Your task to perform on an android device: toggle location history Image 0: 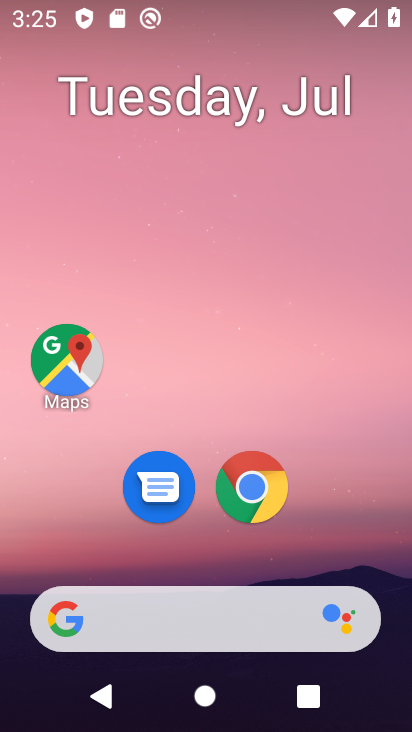
Step 0: drag from (85, 537) to (157, 38)
Your task to perform on an android device: toggle location history Image 1: 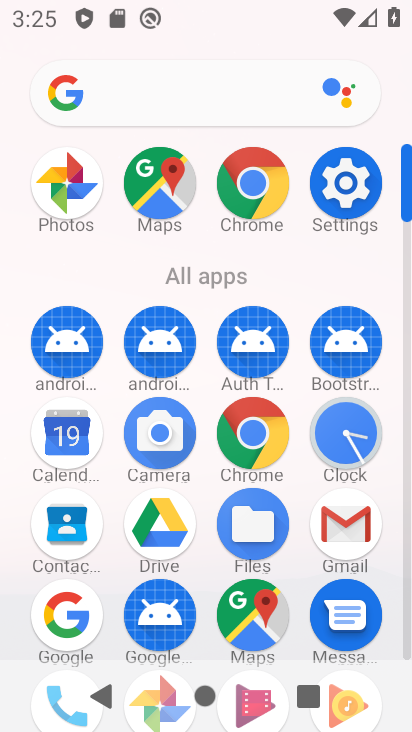
Step 1: click (344, 182)
Your task to perform on an android device: toggle location history Image 2: 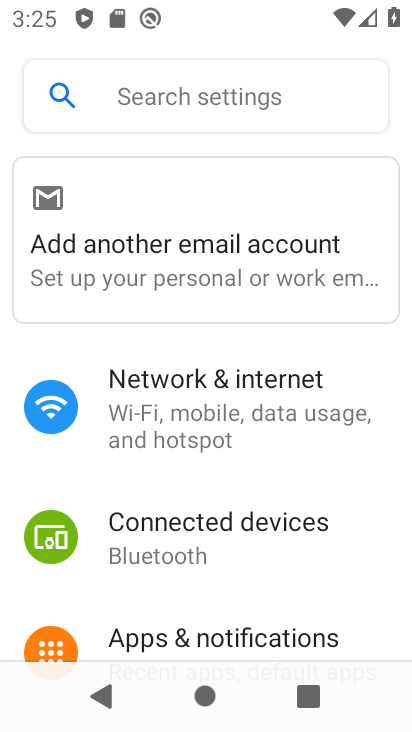
Step 2: drag from (208, 591) to (195, 196)
Your task to perform on an android device: toggle location history Image 3: 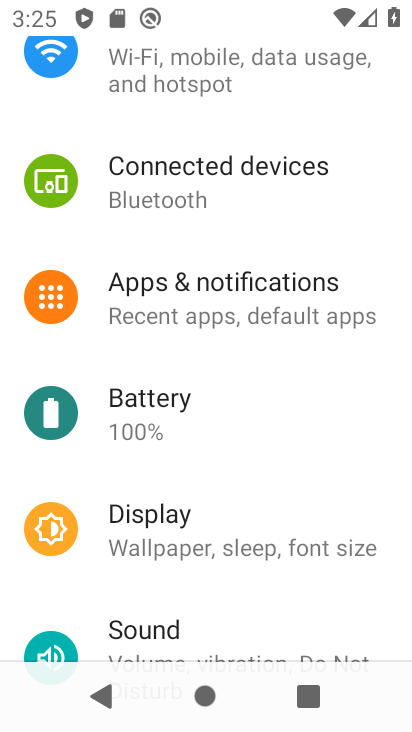
Step 3: drag from (186, 223) to (197, 156)
Your task to perform on an android device: toggle location history Image 4: 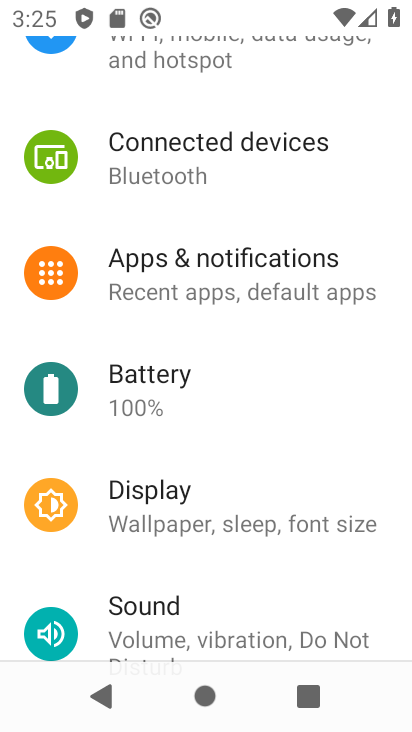
Step 4: drag from (157, 604) to (279, 12)
Your task to perform on an android device: toggle location history Image 5: 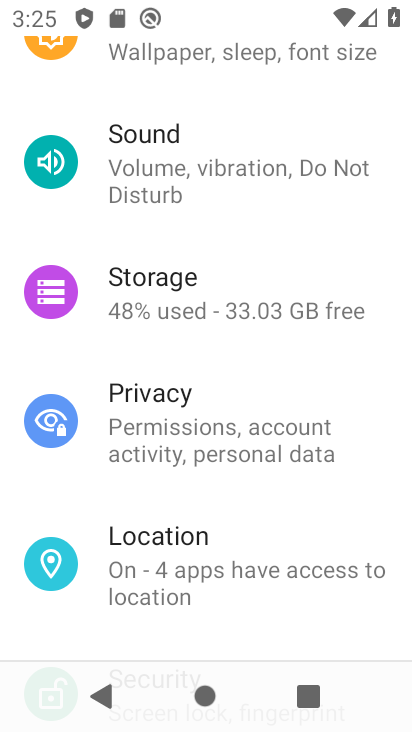
Step 5: click (201, 569)
Your task to perform on an android device: toggle location history Image 6: 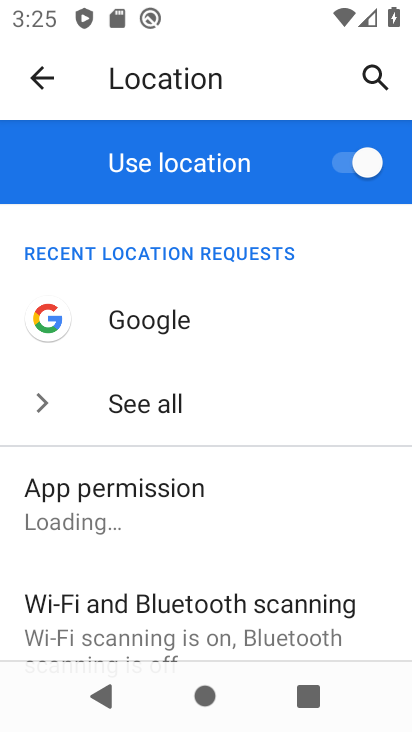
Step 6: drag from (133, 632) to (236, 152)
Your task to perform on an android device: toggle location history Image 7: 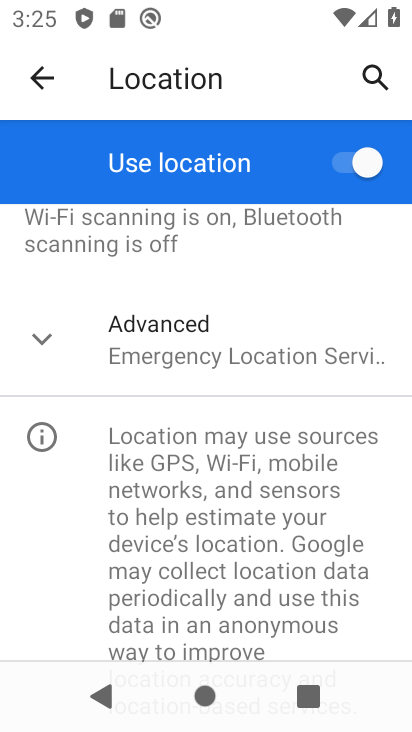
Step 7: click (168, 330)
Your task to perform on an android device: toggle location history Image 8: 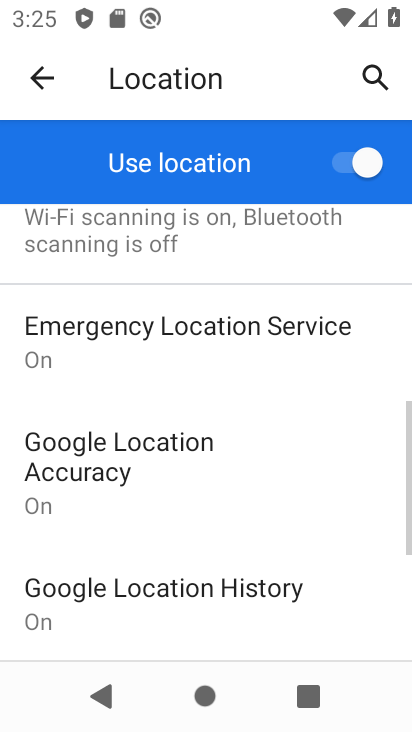
Step 8: click (191, 598)
Your task to perform on an android device: toggle location history Image 9: 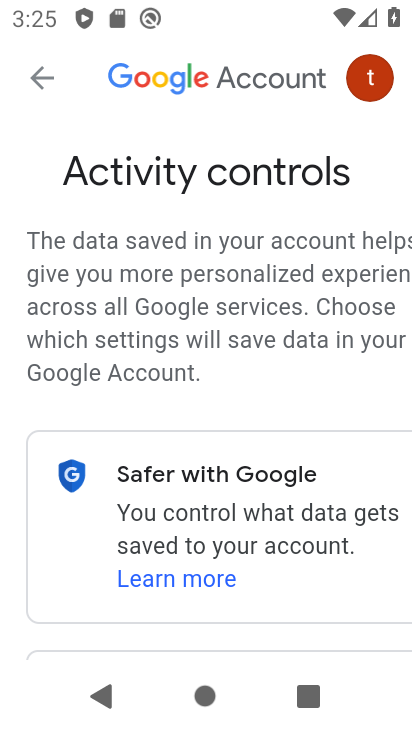
Step 9: drag from (184, 595) to (194, 2)
Your task to perform on an android device: toggle location history Image 10: 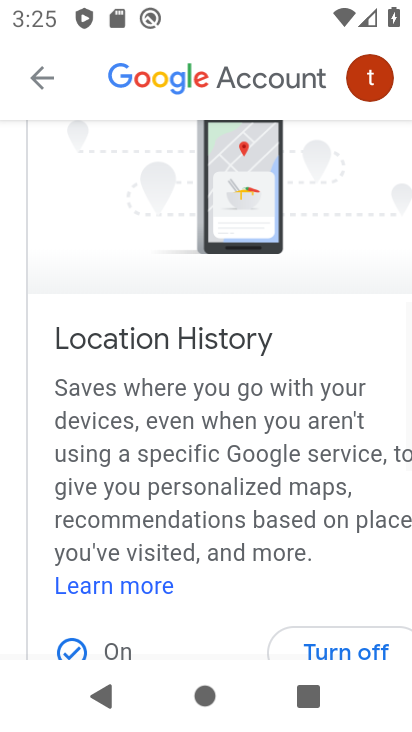
Step 10: drag from (181, 640) to (190, 267)
Your task to perform on an android device: toggle location history Image 11: 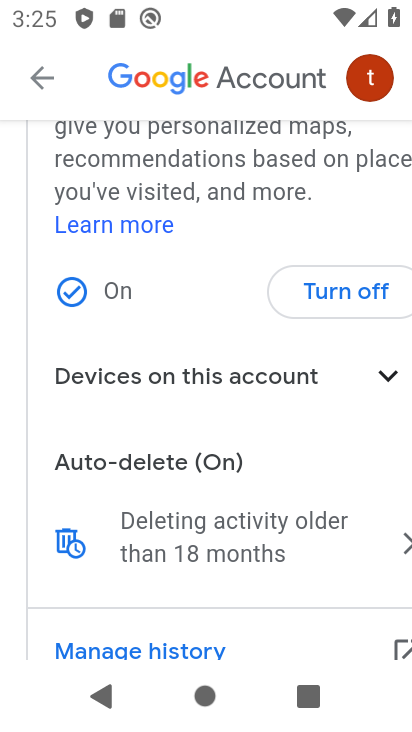
Step 11: click (335, 304)
Your task to perform on an android device: toggle location history Image 12: 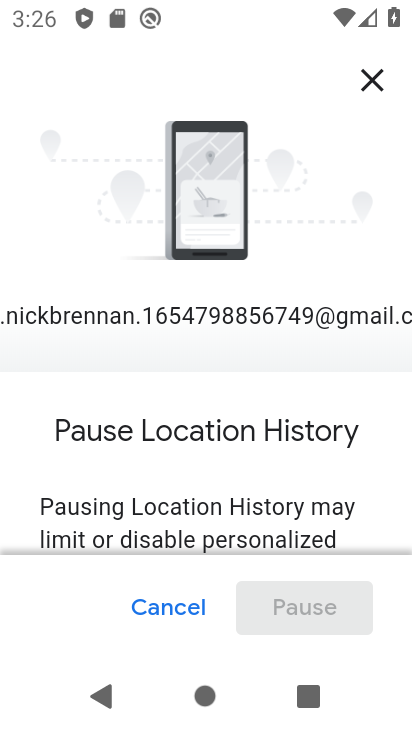
Step 12: drag from (223, 478) to (272, 6)
Your task to perform on an android device: toggle location history Image 13: 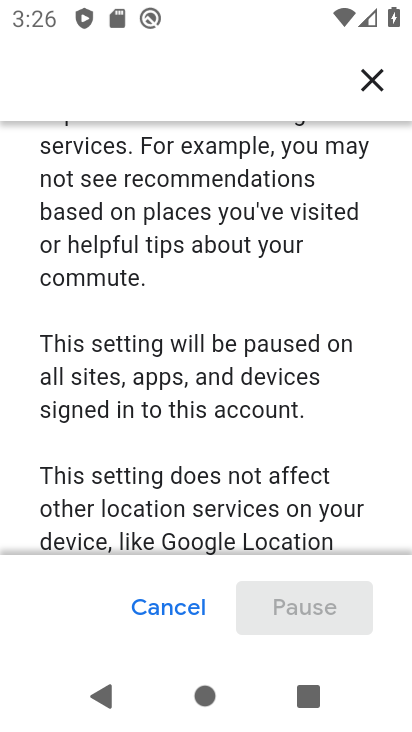
Step 13: drag from (190, 500) to (247, 40)
Your task to perform on an android device: toggle location history Image 14: 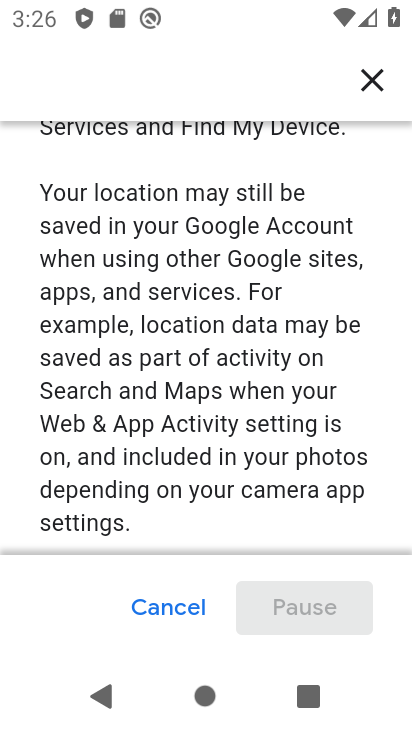
Step 14: drag from (231, 512) to (298, 1)
Your task to perform on an android device: toggle location history Image 15: 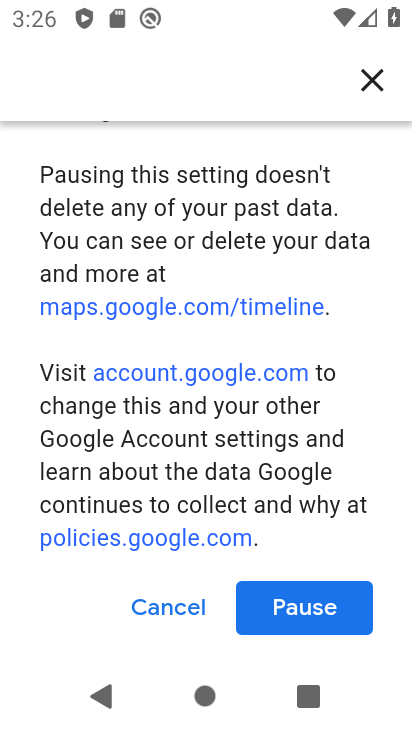
Step 15: click (288, 617)
Your task to perform on an android device: toggle location history Image 16: 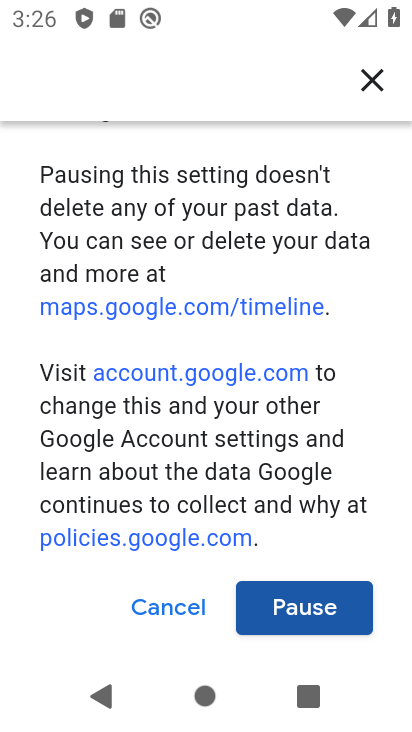
Step 16: click (296, 601)
Your task to perform on an android device: toggle location history Image 17: 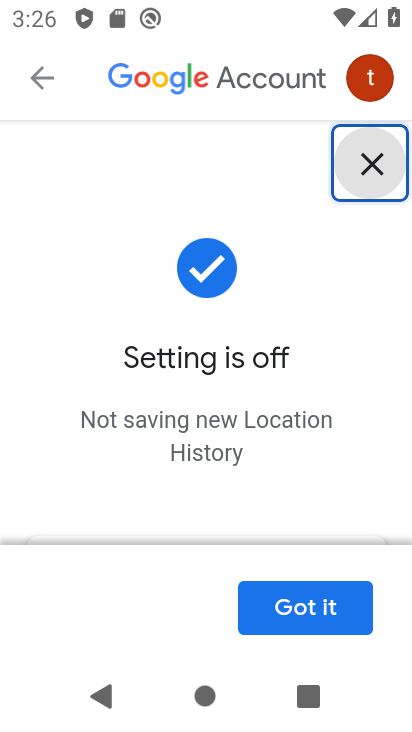
Step 17: click (292, 598)
Your task to perform on an android device: toggle location history Image 18: 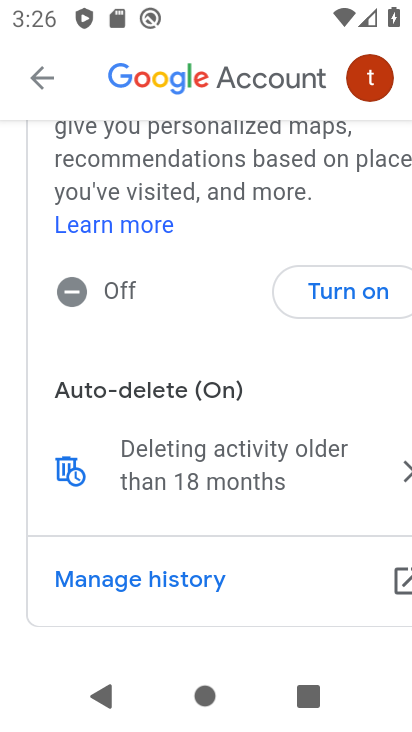
Step 18: task complete